Your task to perform on an android device: Open battery settings Image 0: 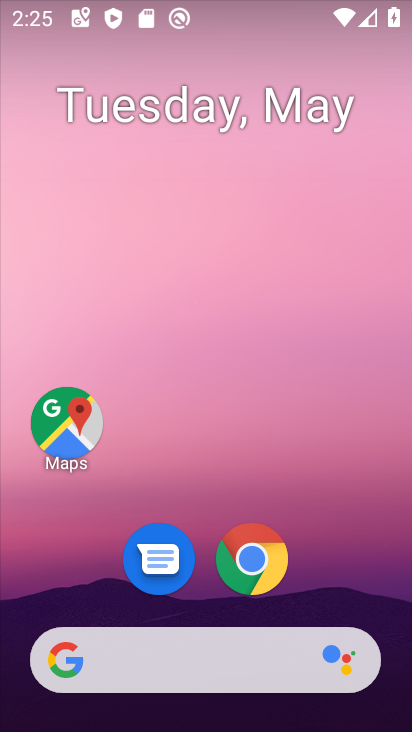
Step 0: drag from (170, 664) to (299, 158)
Your task to perform on an android device: Open battery settings Image 1: 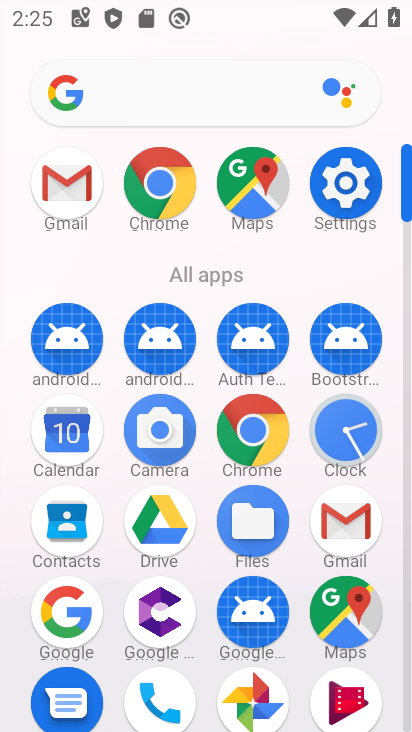
Step 1: click (337, 195)
Your task to perform on an android device: Open battery settings Image 2: 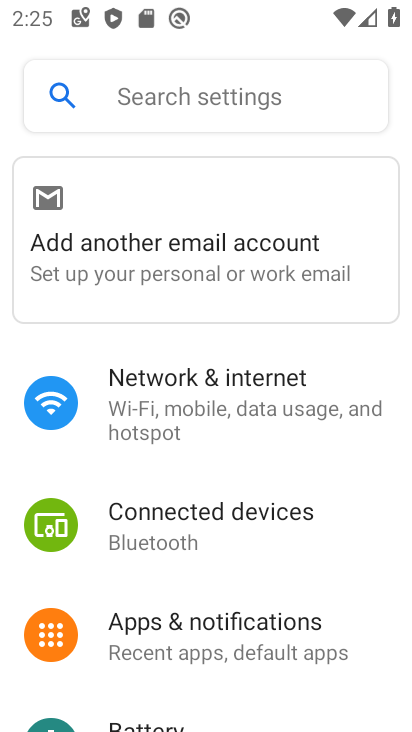
Step 2: drag from (224, 562) to (330, 205)
Your task to perform on an android device: Open battery settings Image 3: 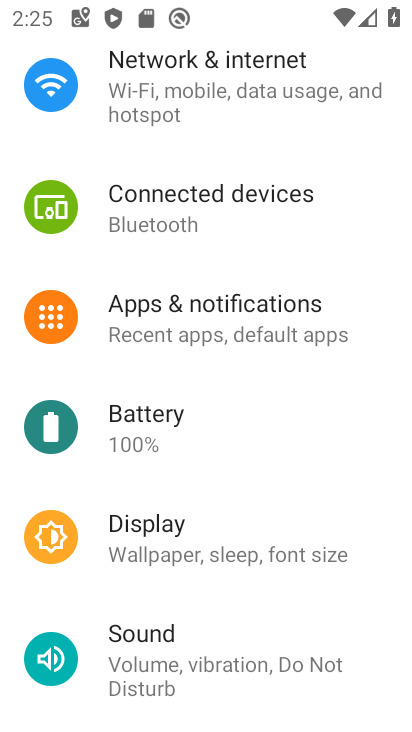
Step 3: click (141, 427)
Your task to perform on an android device: Open battery settings Image 4: 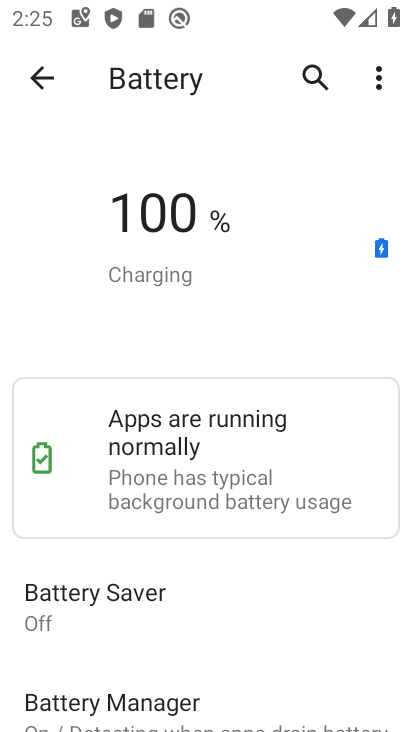
Step 4: task complete